Your task to perform on an android device: star an email in the gmail app Image 0: 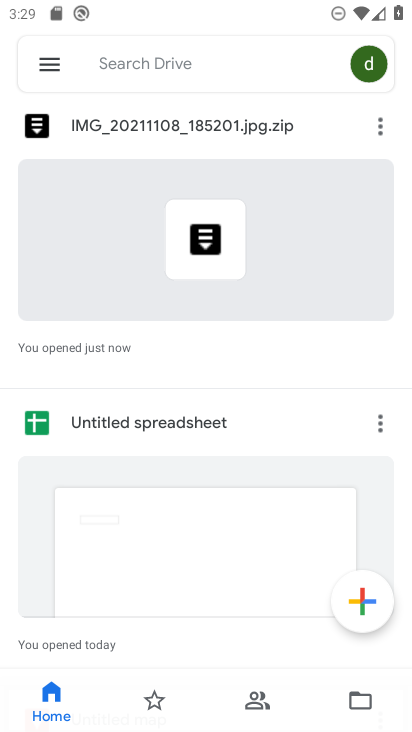
Step 0: press home button
Your task to perform on an android device: star an email in the gmail app Image 1: 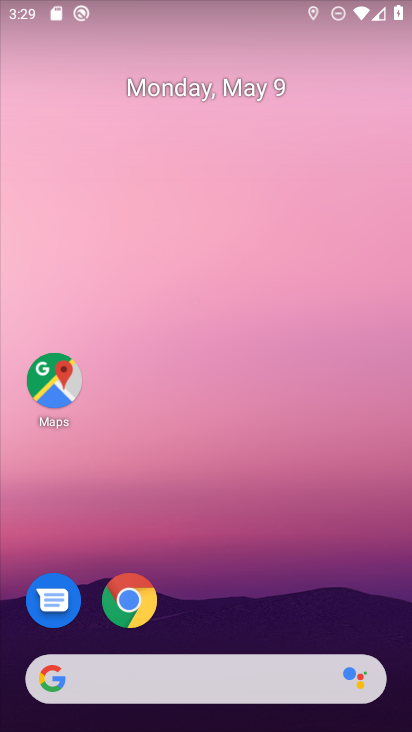
Step 1: drag from (198, 657) to (269, 314)
Your task to perform on an android device: star an email in the gmail app Image 2: 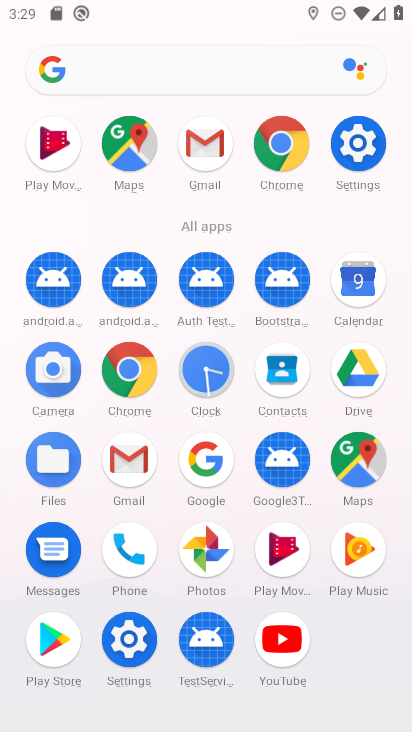
Step 2: click (148, 474)
Your task to perform on an android device: star an email in the gmail app Image 3: 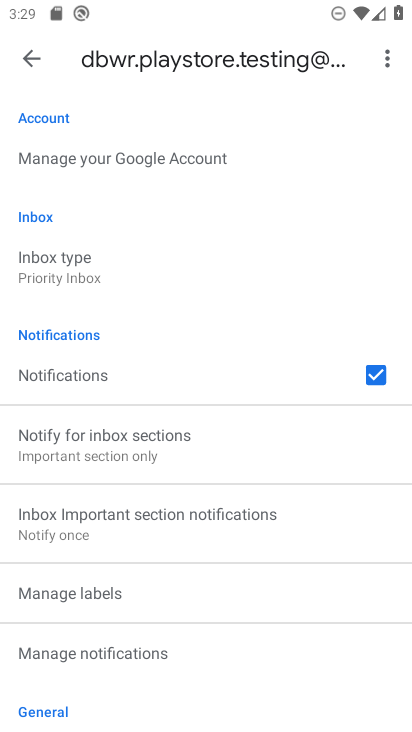
Step 3: click (38, 56)
Your task to perform on an android device: star an email in the gmail app Image 4: 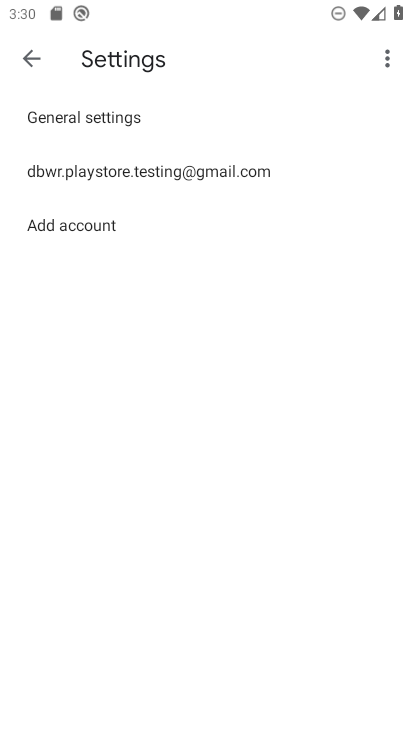
Step 4: click (40, 35)
Your task to perform on an android device: star an email in the gmail app Image 5: 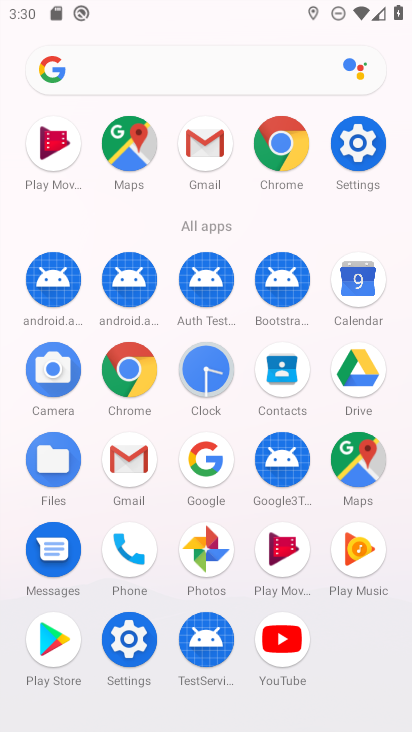
Step 5: click (129, 480)
Your task to perform on an android device: star an email in the gmail app Image 6: 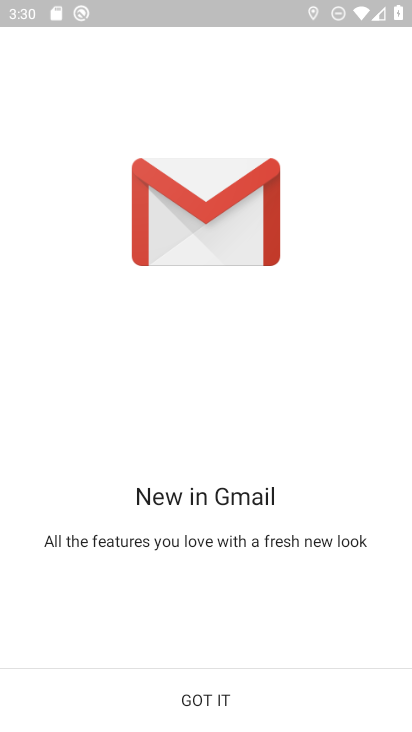
Step 6: click (190, 689)
Your task to perform on an android device: star an email in the gmail app Image 7: 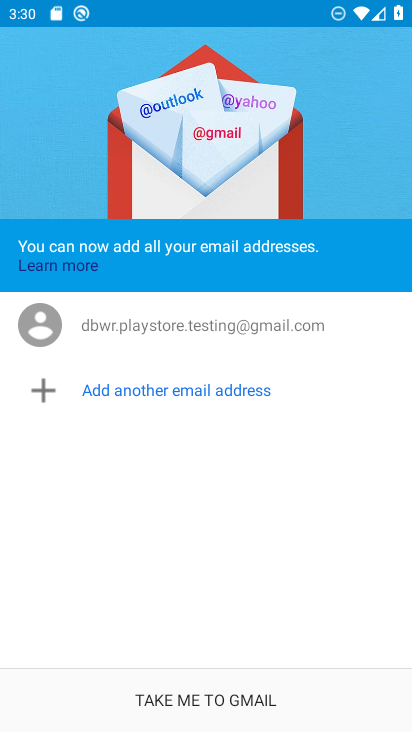
Step 7: click (191, 694)
Your task to perform on an android device: star an email in the gmail app Image 8: 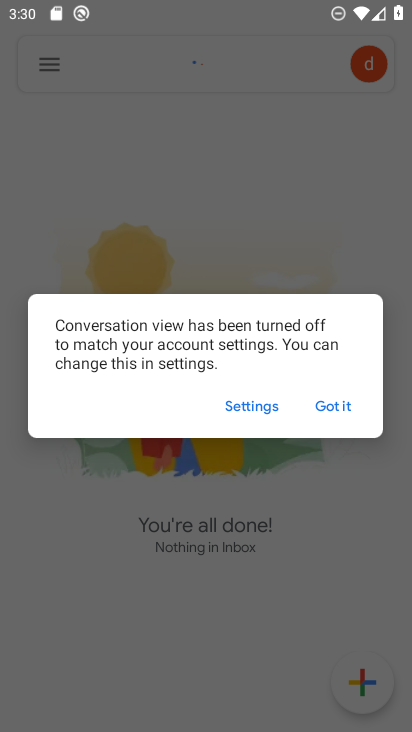
Step 8: click (332, 411)
Your task to perform on an android device: star an email in the gmail app Image 9: 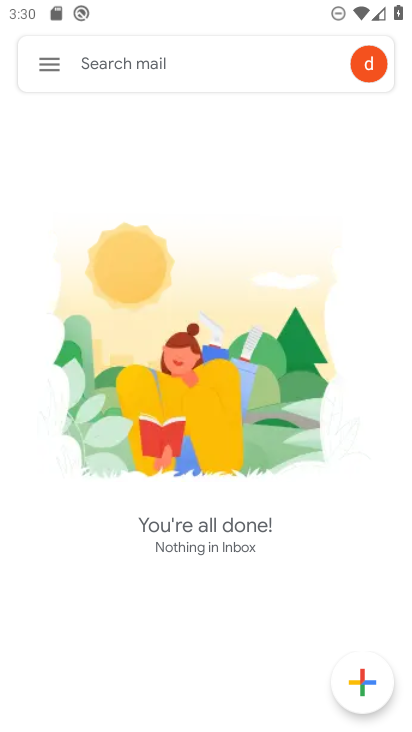
Step 9: click (62, 64)
Your task to perform on an android device: star an email in the gmail app Image 10: 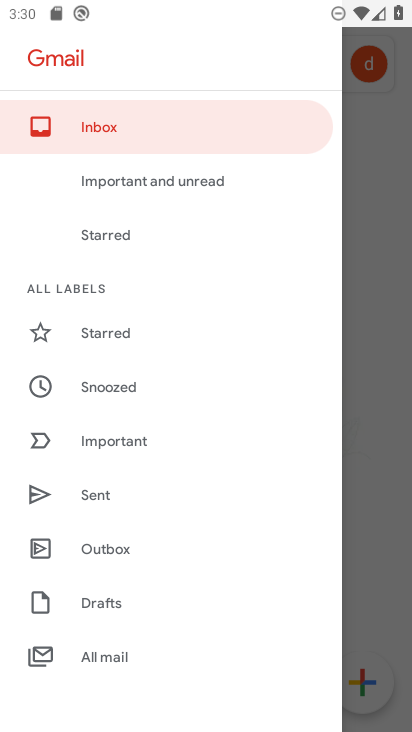
Step 10: click (110, 659)
Your task to perform on an android device: star an email in the gmail app Image 11: 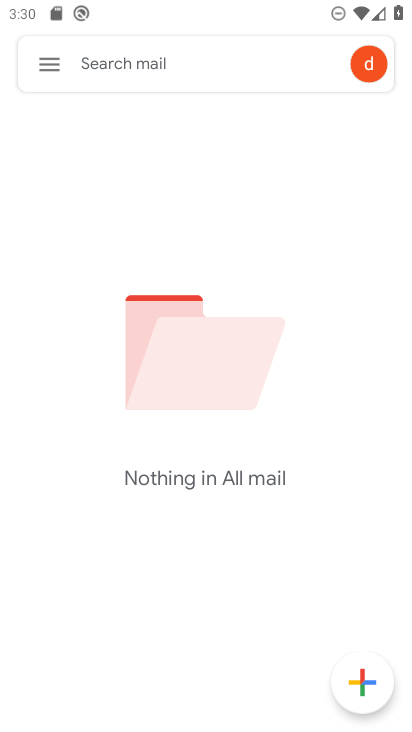
Step 11: task complete